Your task to perform on an android device: Open Chrome and go to settings Image 0: 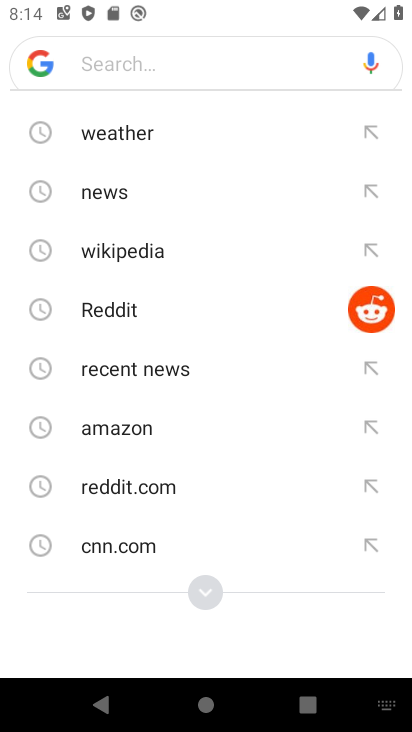
Step 0: press home button
Your task to perform on an android device: Open Chrome and go to settings Image 1: 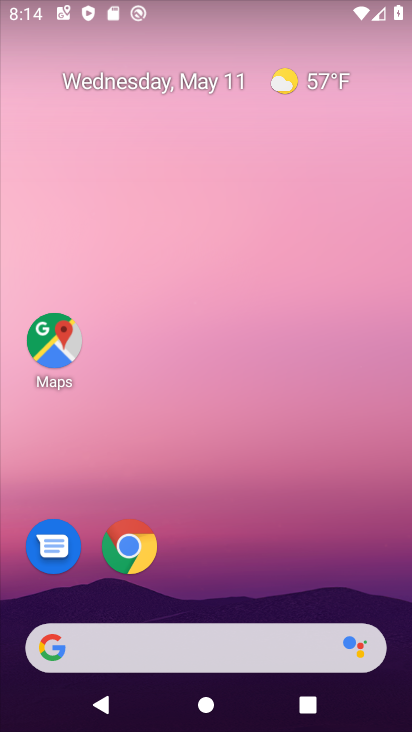
Step 1: click (145, 551)
Your task to perform on an android device: Open Chrome and go to settings Image 2: 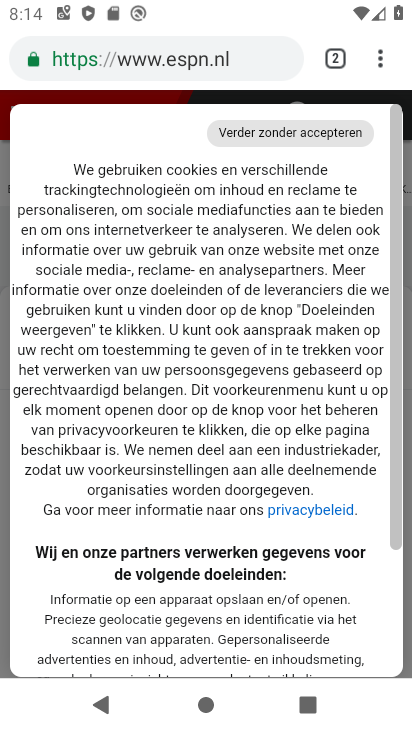
Step 2: click (370, 61)
Your task to perform on an android device: Open Chrome and go to settings Image 3: 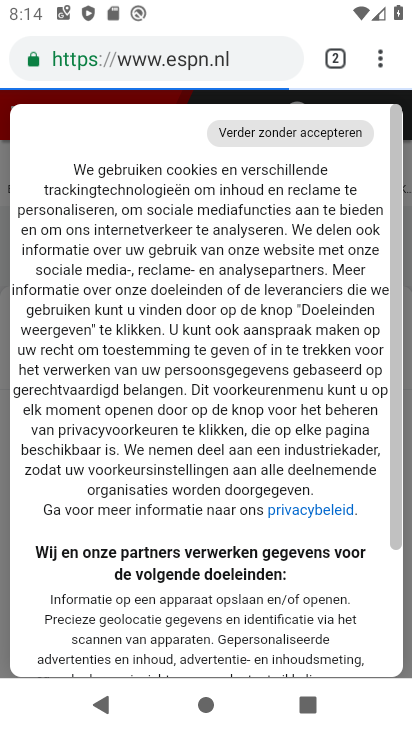
Step 3: click (381, 63)
Your task to perform on an android device: Open Chrome and go to settings Image 4: 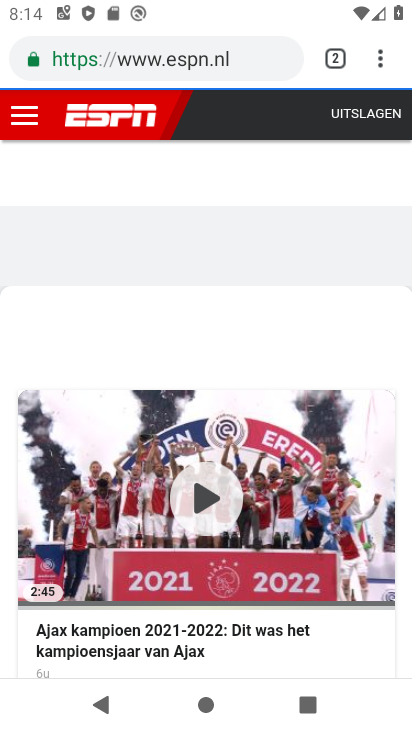
Step 4: task complete